Your task to perform on an android device: Is it going to rain today? Image 0: 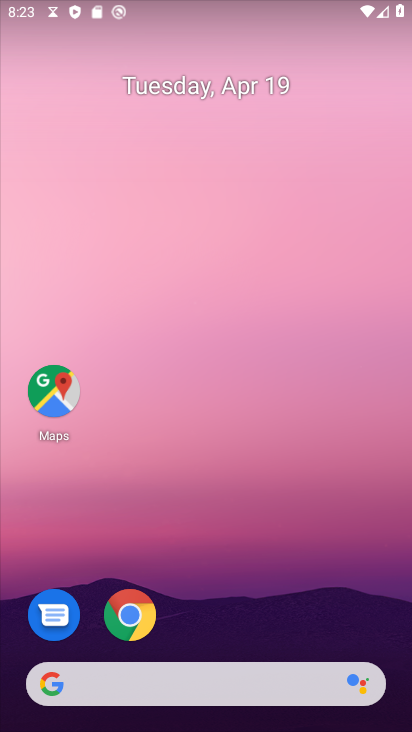
Step 0: drag from (391, 646) to (281, 5)
Your task to perform on an android device: Is it going to rain today? Image 1: 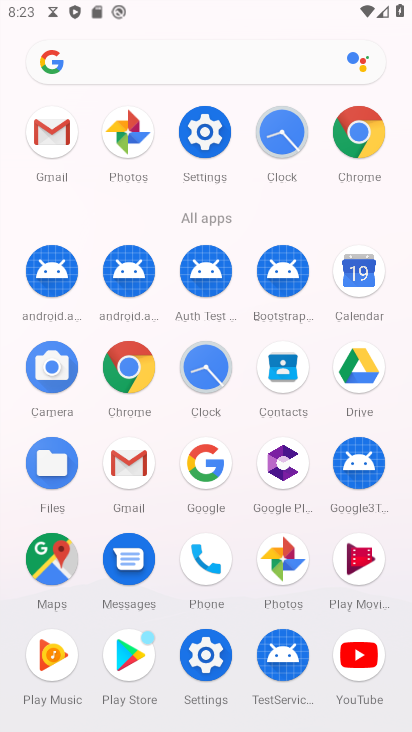
Step 1: drag from (5, 476) to (5, 244)
Your task to perform on an android device: Is it going to rain today? Image 2: 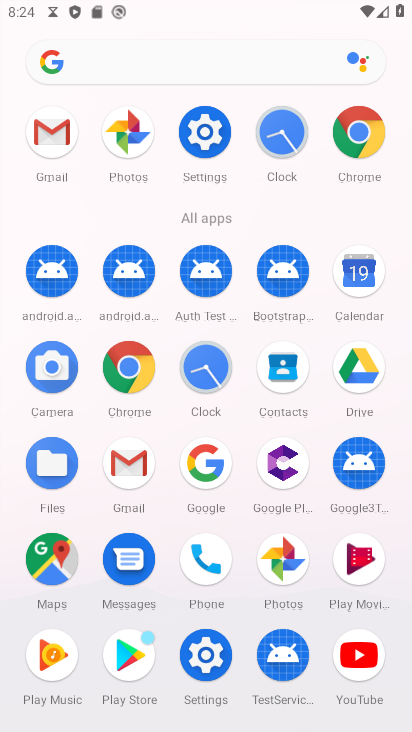
Step 2: drag from (17, 293) to (15, 247)
Your task to perform on an android device: Is it going to rain today? Image 3: 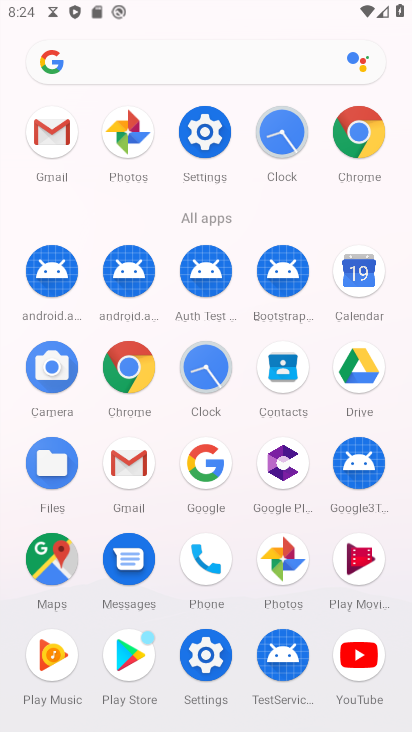
Step 3: click (199, 461)
Your task to perform on an android device: Is it going to rain today? Image 4: 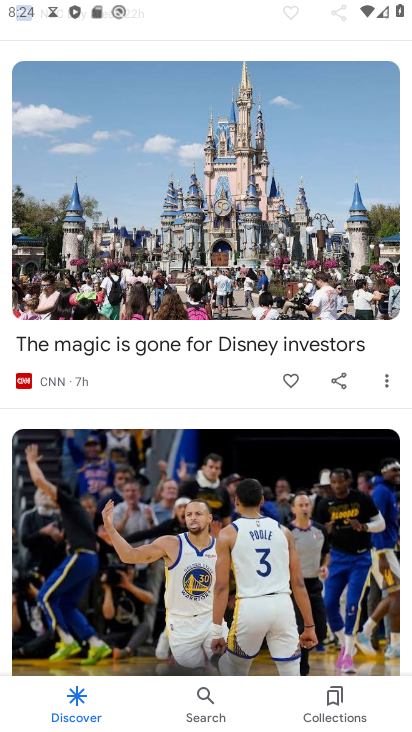
Step 4: drag from (274, 235) to (279, 476)
Your task to perform on an android device: Is it going to rain today? Image 5: 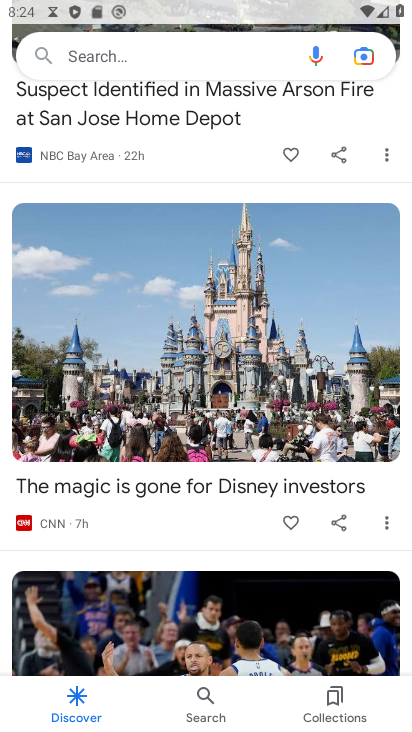
Step 5: drag from (231, 325) to (227, 467)
Your task to perform on an android device: Is it going to rain today? Image 6: 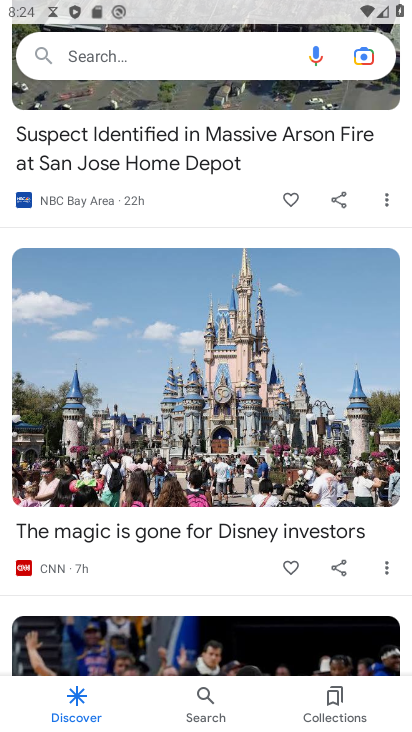
Step 6: click (187, 58)
Your task to perform on an android device: Is it going to rain today? Image 7: 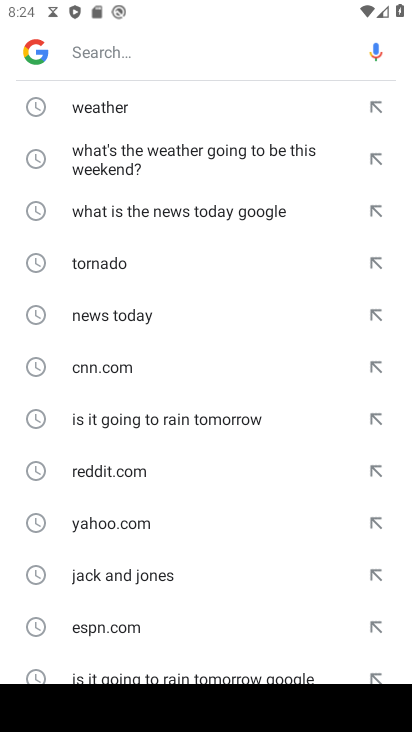
Step 7: click (174, 103)
Your task to perform on an android device: Is it going to rain today? Image 8: 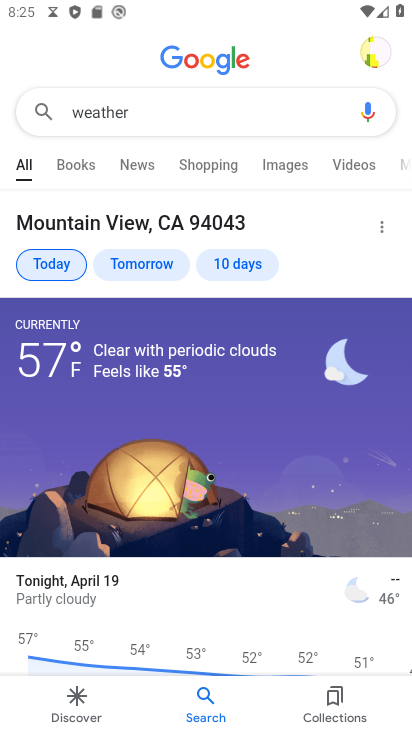
Step 8: task complete